Your task to perform on an android device: delete location history Image 0: 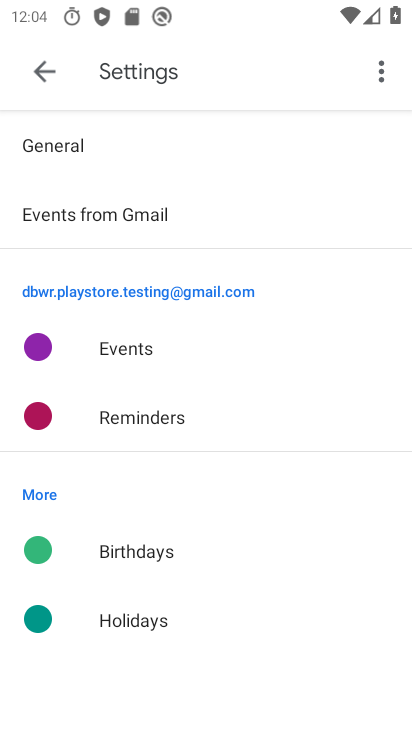
Step 0: press home button
Your task to perform on an android device: delete location history Image 1: 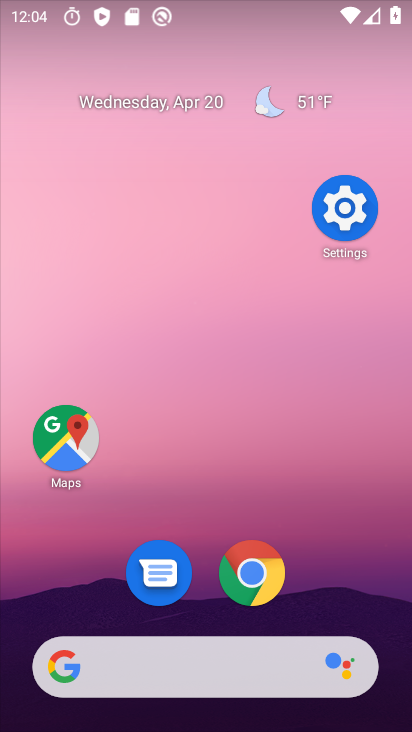
Step 1: drag from (337, 600) to (344, 567)
Your task to perform on an android device: delete location history Image 2: 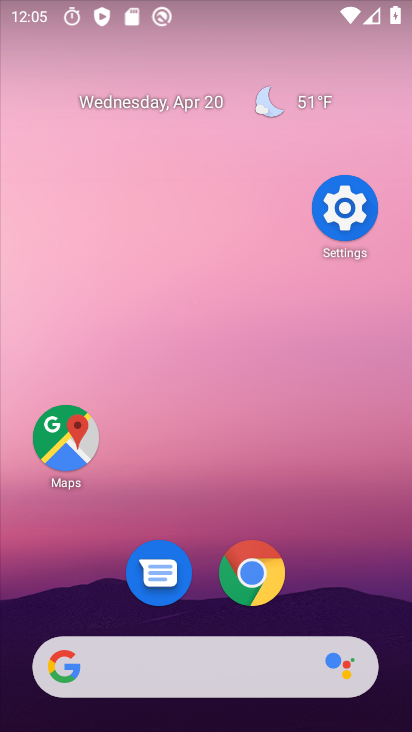
Step 2: click (338, 225)
Your task to perform on an android device: delete location history Image 3: 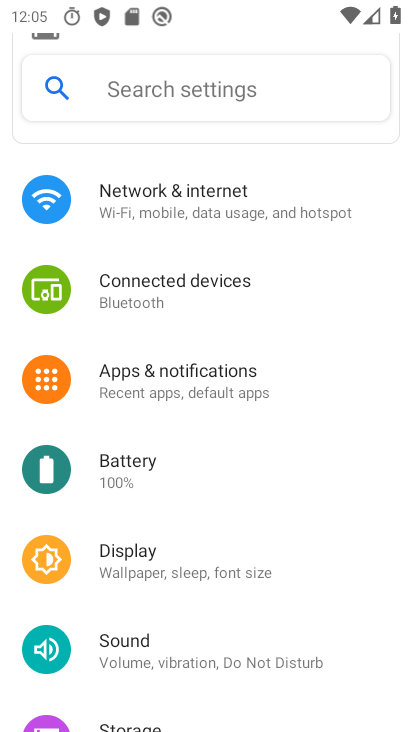
Step 3: drag from (259, 602) to (250, 238)
Your task to perform on an android device: delete location history Image 4: 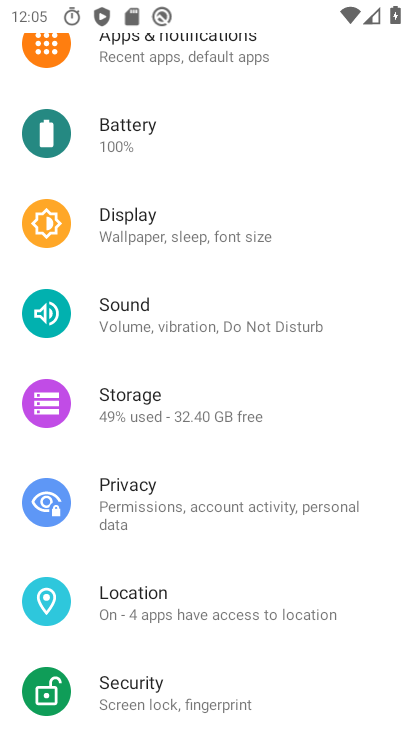
Step 4: click (201, 613)
Your task to perform on an android device: delete location history Image 5: 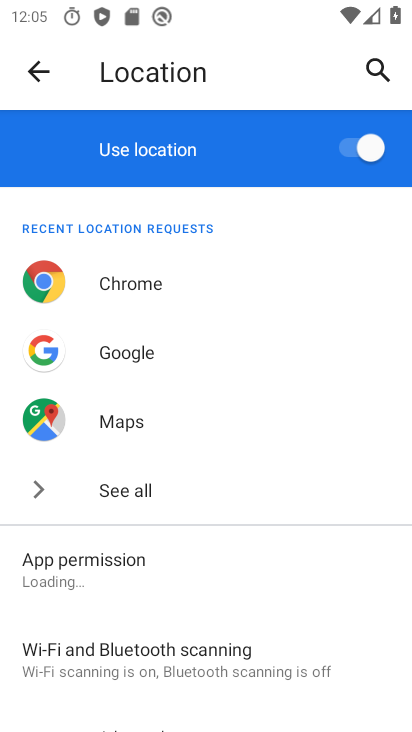
Step 5: drag from (261, 605) to (243, 308)
Your task to perform on an android device: delete location history Image 6: 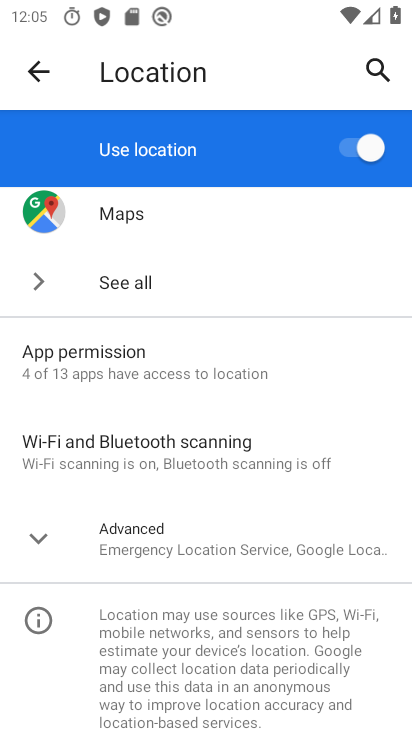
Step 6: click (42, 543)
Your task to perform on an android device: delete location history Image 7: 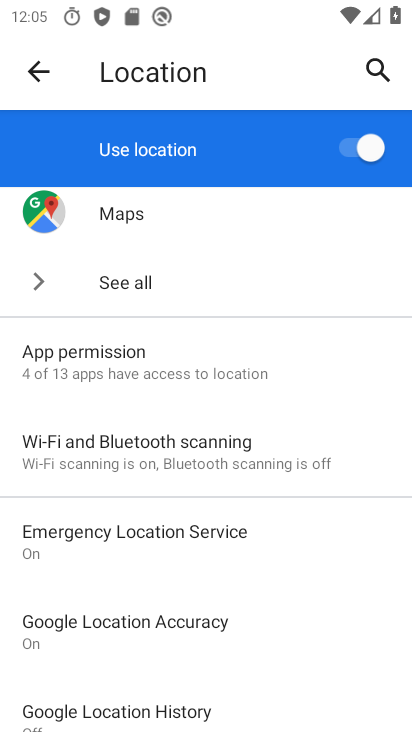
Step 7: click (187, 714)
Your task to perform on an android device: delete location history Image 8: 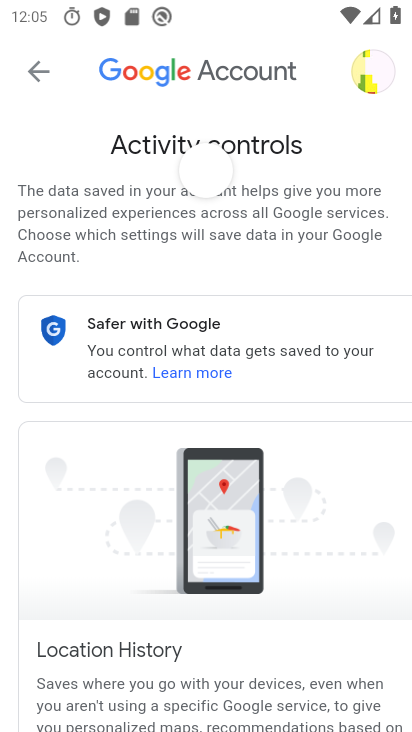
Step 8: drag from (328, 624) to (305, 296)
Your task to perform on an android device: delete location history Image 9: 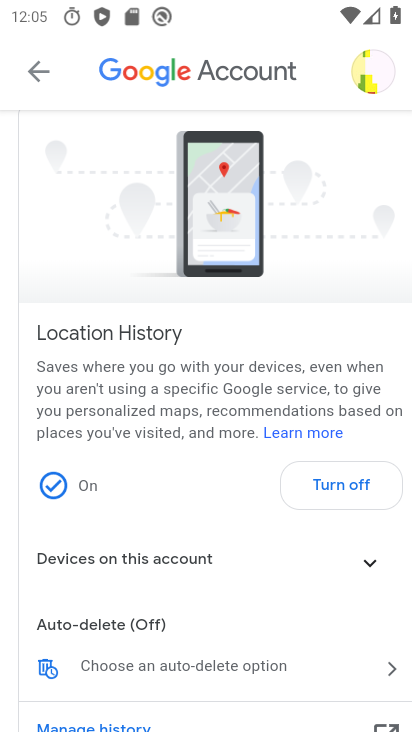
Step 9: drag from (244, 683) to (255, 569)
Your task to perform on an android device: delete location history Image 10: 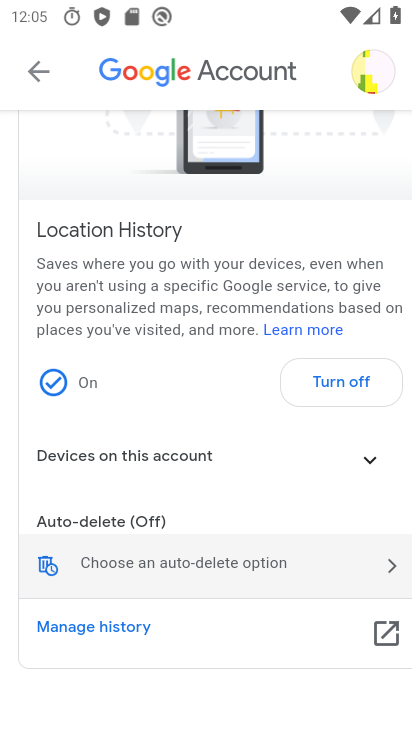
Step 10: click (253, 565)
Your task to perform on an android device: delete location history Image 11: 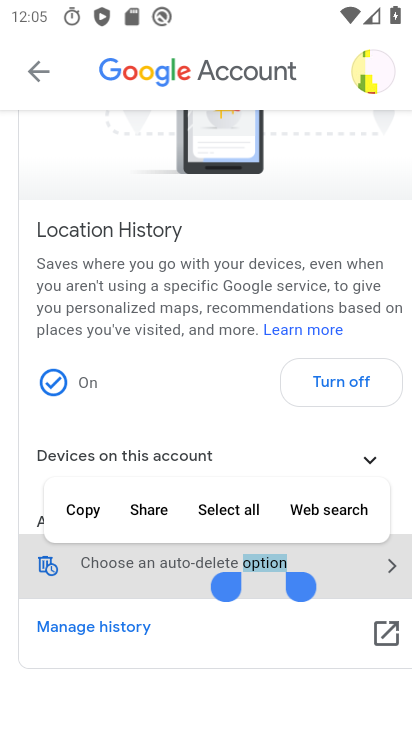
Step 11: click (365, 569)
Your task to perform on an android device: delete location history Image 12: 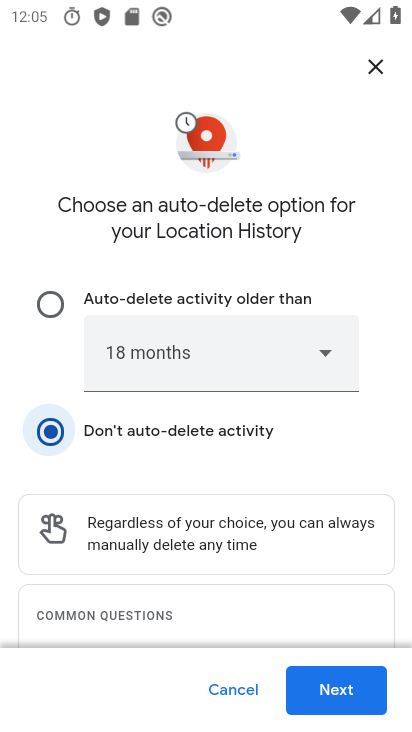
Step 12: click (347, 683)
Your task to perform on an android device: delete location history Image 13: 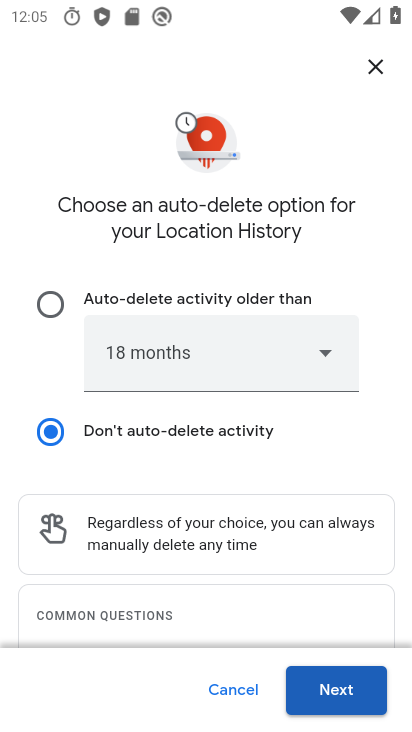
Step 13: click (346, 698)
Your task to perform on an android device: delete location history Image 14: 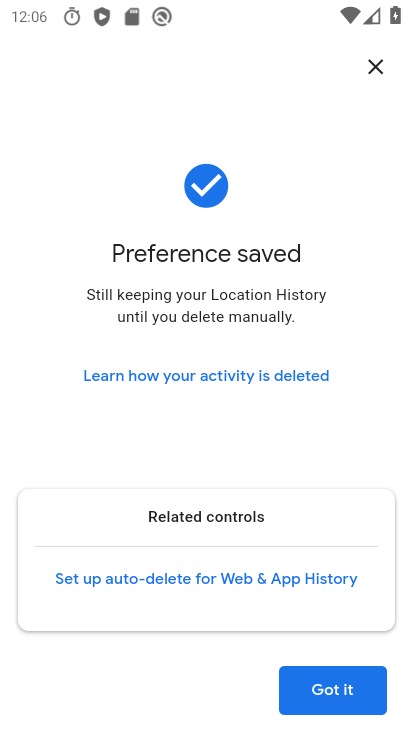
Step 14: click (345, 684)
Your task to perform on an android device: delete location history Image 15: 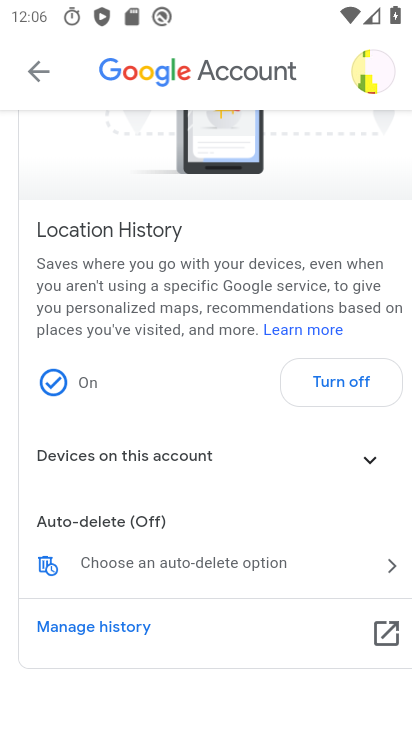
Step 15: task complete